Your task to perform on an android device: check out phone information Image 0: 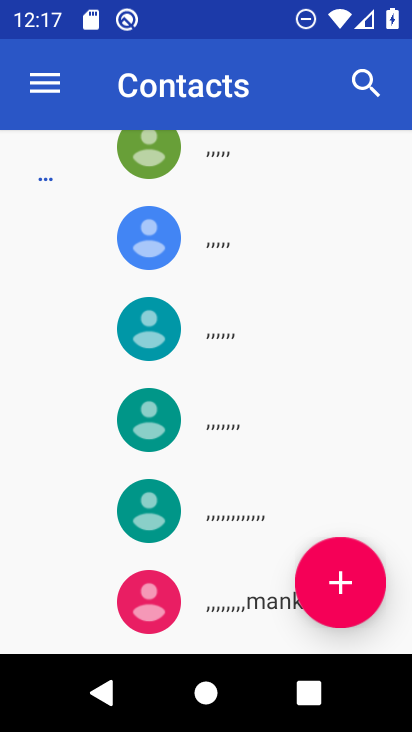
Step 0: press home button
Your task to perform on an android device: check out phone information Image 1: 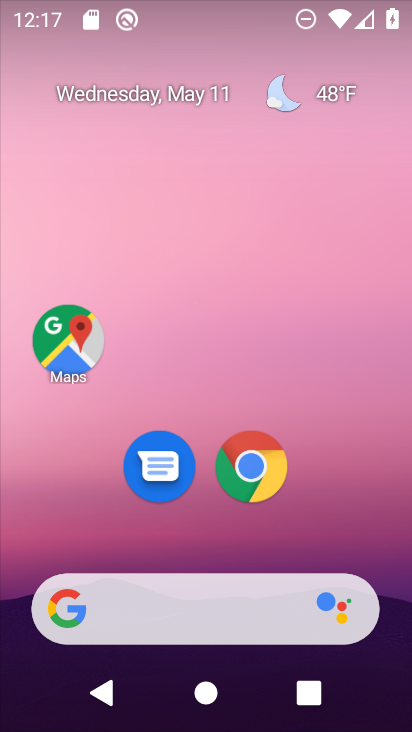
Step 1: drag from (199, 551) to (199, 24)
Your task to perform on an android device: check out phone information Image 2: 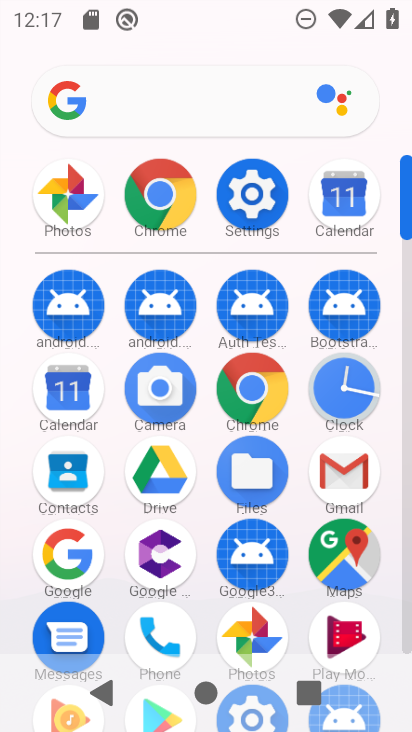
Step 2: click (255, 184)
Your task to perform on an android device: check out phone information Image 3: 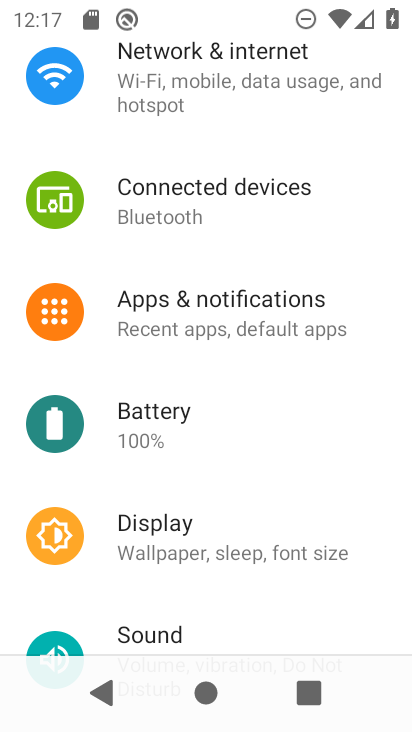
Step 3: drag from (231, 609) to (256, 55)
Your task to perform on an android device: check out phone information Image 4: 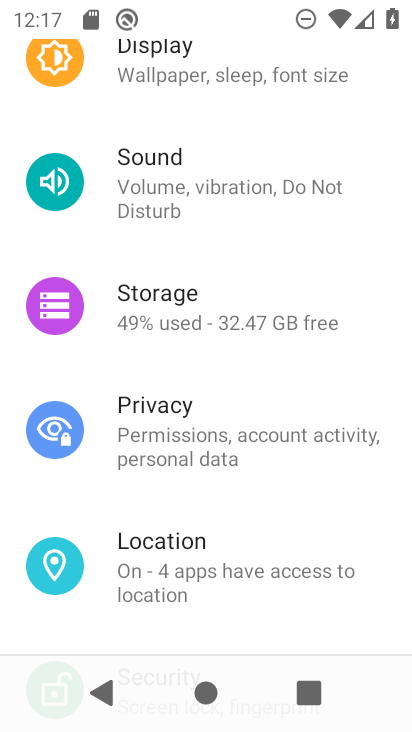
Step 4: drag from (243, 588) to (233, 169)
Your task to perform on an android device: check out phone information Image 5: 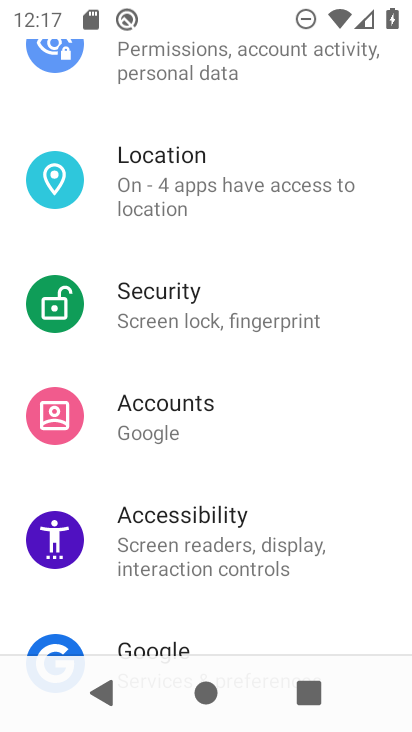
Step 5: drag from (217, 624) to (243, 11)
Your task to perform on an android device: check out phone information Image 6: 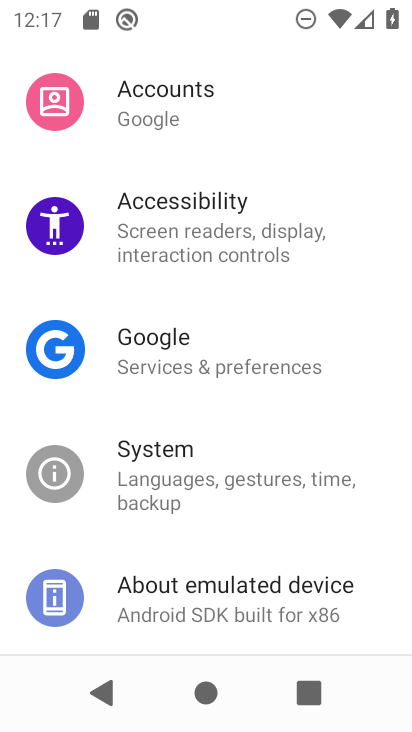
Step 6: click (192, 597)
Your task to perform on an android device: check out phone information Image 7: 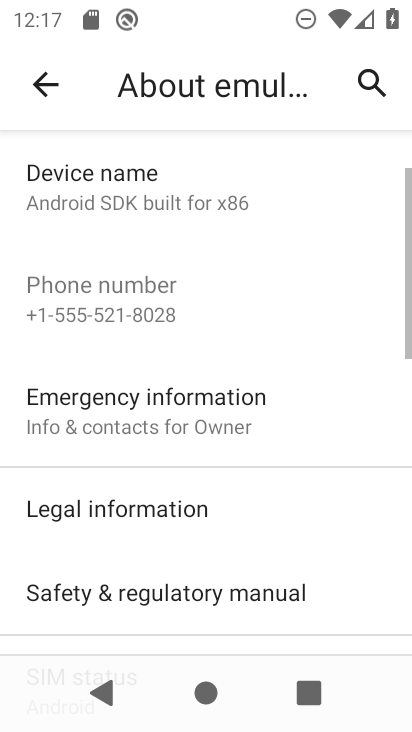
Step 7: drag from (319, 582) to (318, 109)
Your task to perform on an android device: check out phone information Image 8: 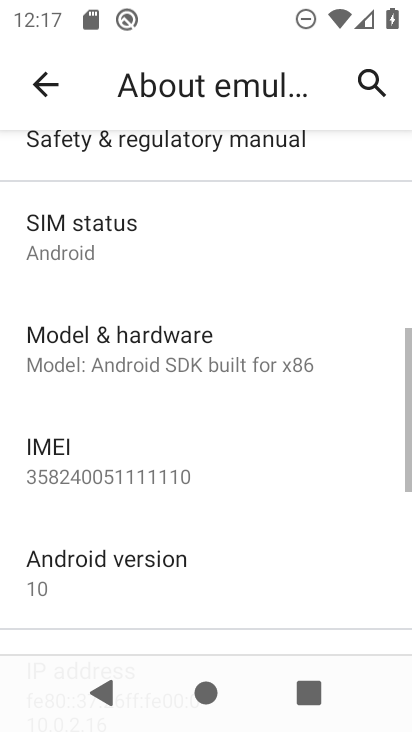
Step 8: drag from (294, 530) to (300, 221)
Your task to perform on an android device: check out phone information Image 9: 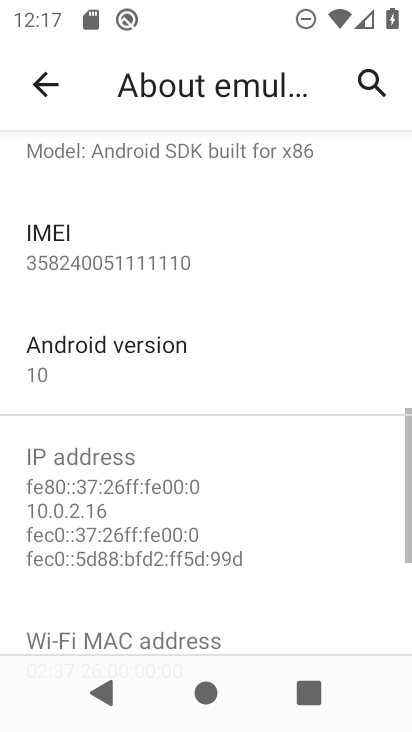
Step 9: click (300, 172)
Your task to perform on an android device: check out phone information Image 10: 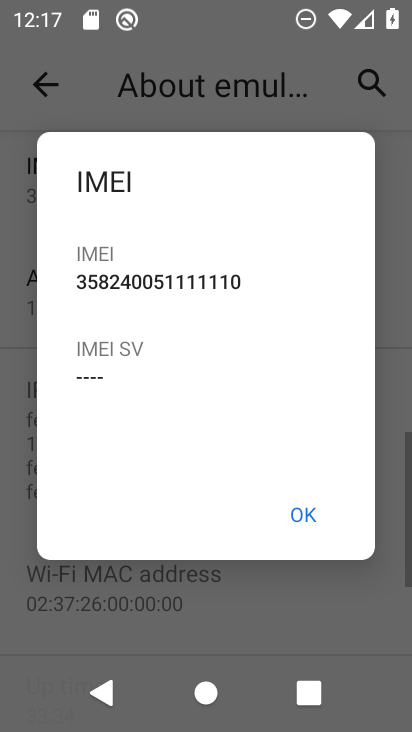
Step 10: click (313, 517)
Your task to perform on an android device: check out phone information Image 11: 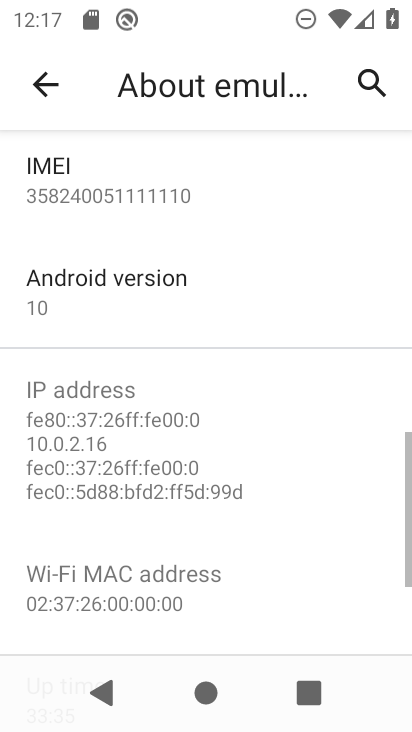
Step 11: task complete